Your task to perform on an android device: Go to Yahoo.com Image 0: 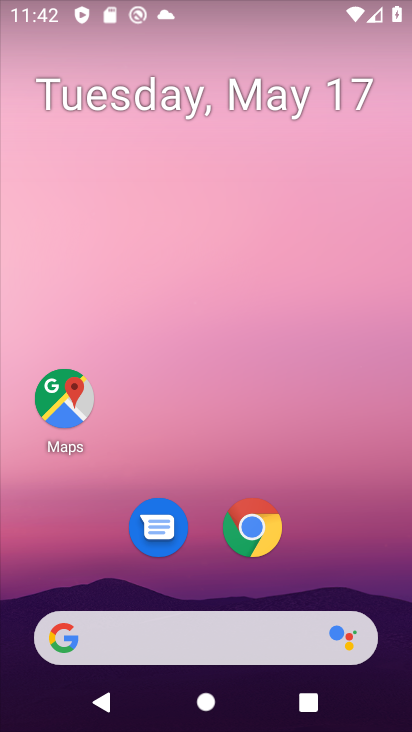
Step 0: click (255, 534)
Your task to perform on an android device: Go to Yahoo.com Image 1: 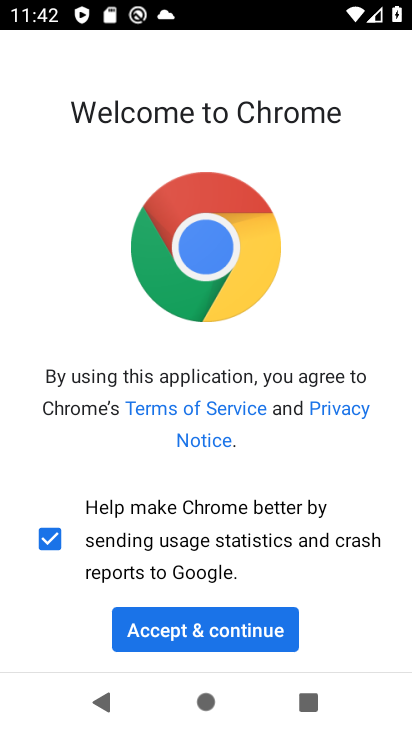
Step 1: click (220, 606)
Your task to perform on an android device: Go to Yahoo.com Image 2: 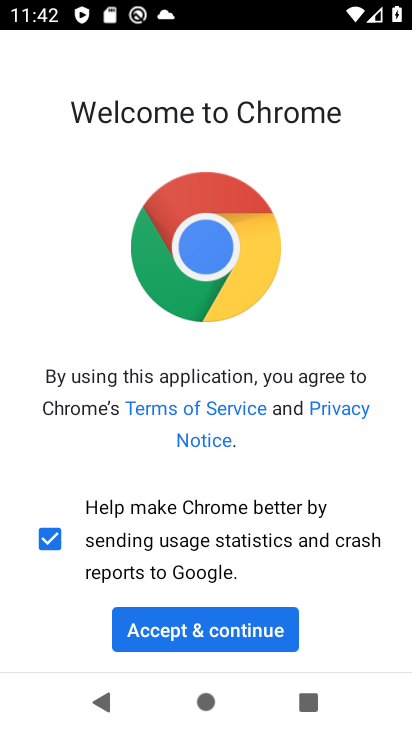
Step 2: click (234, 637)
Your task to perform on an android device: Go to Yahoo.com Image 3: 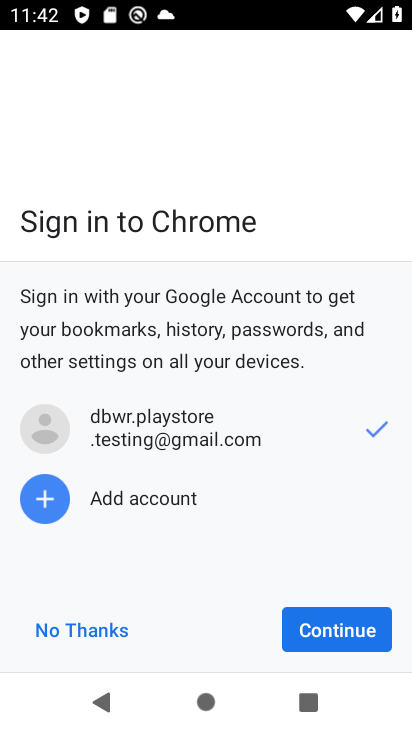
Step 3: click (383, 642)
Your task to perform on an android device: Go to Yahoo.com Image 4: 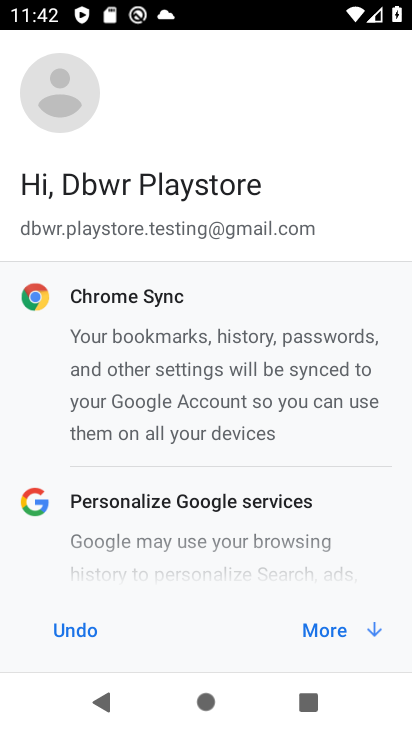
Step 4: click (335, 632)
Your task to perform on an android device: Go to Yahoo.com Image 5: 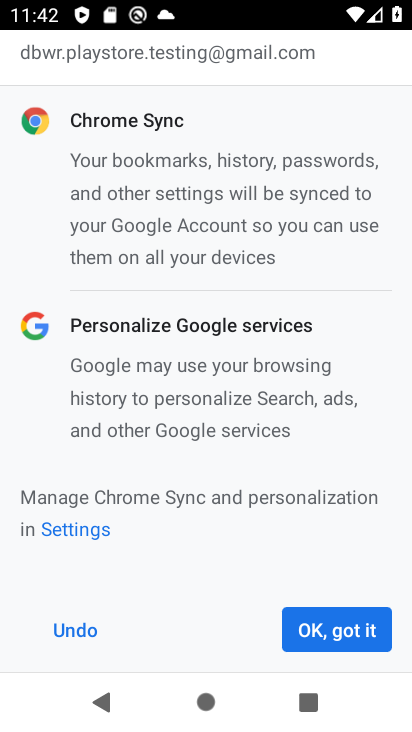
Step 5: click (335, 631)
Your task to perform on an android device: Go to Yahoo.com Image 6: 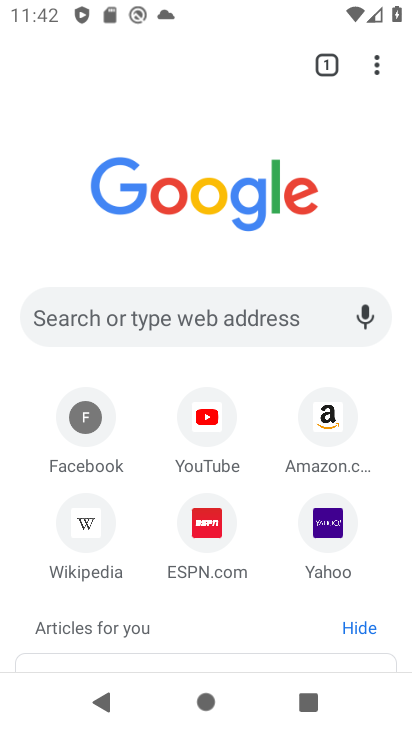
Step 6: click (325, 531)
Your task to perform on an android device: Go to Yahoo.com Image 7: 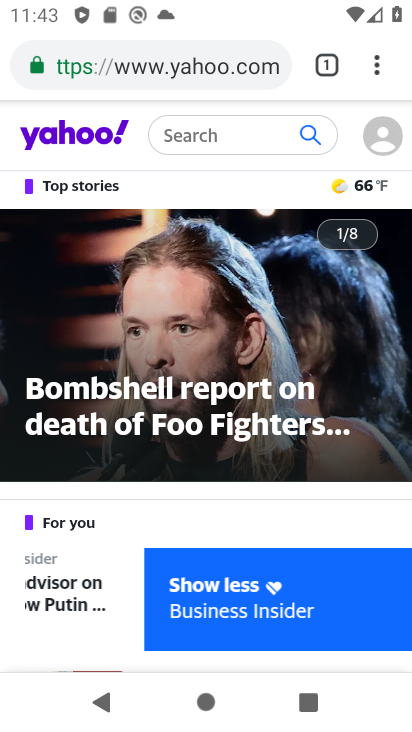
Step 7: task complete